Your task to perform on an android device: change the clock display to show seconds Image 0: 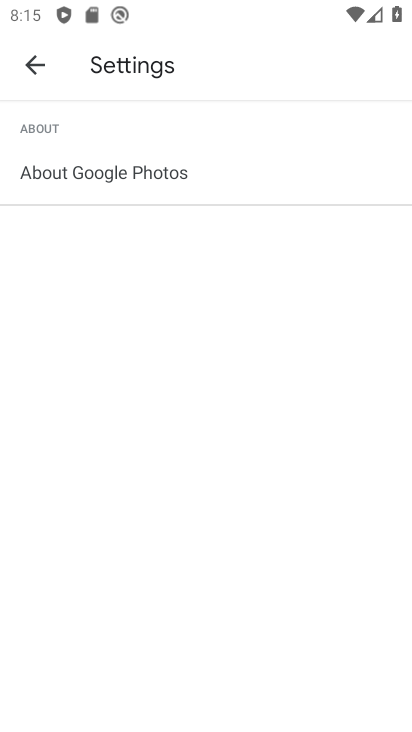
Step 0: press home button
Your task to perform on an android device: change the clock display to show seconds Image 1: 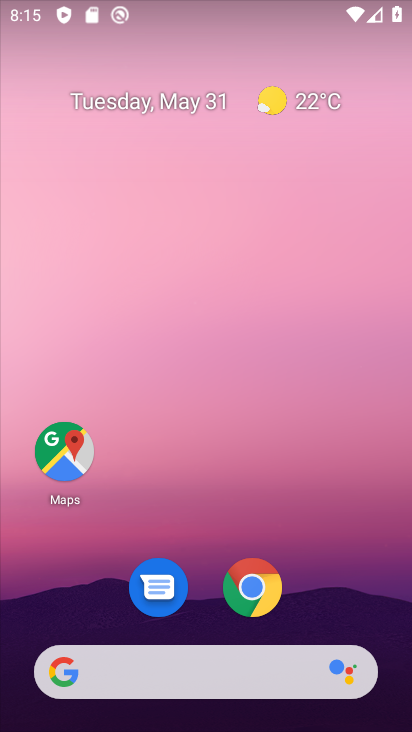
Step 1: drag from (197, 623) to (247, 126)
Your task to perform on an android device: change the clock display to show seconds Image 2: 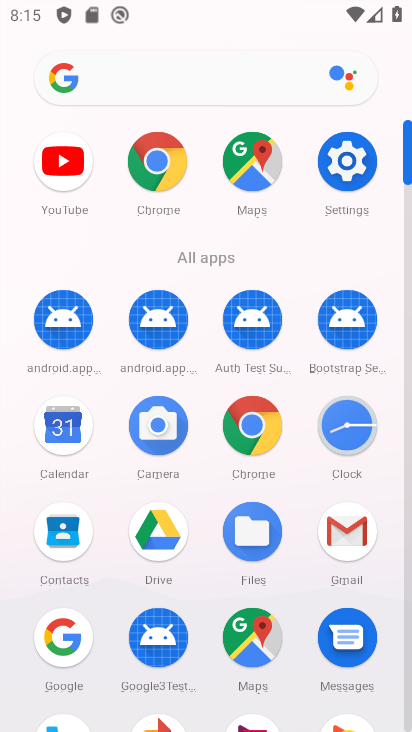
Step 2: click (348, 414)
Your task to perform on an android device: change the clock display to show seconds Image 3: 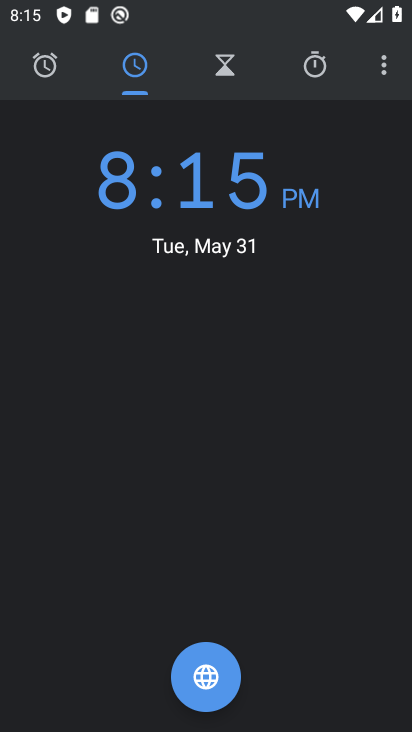
Step 3: click (378, 62)
Your task to perform on an android device: change the clock display to show seconds Image 4: 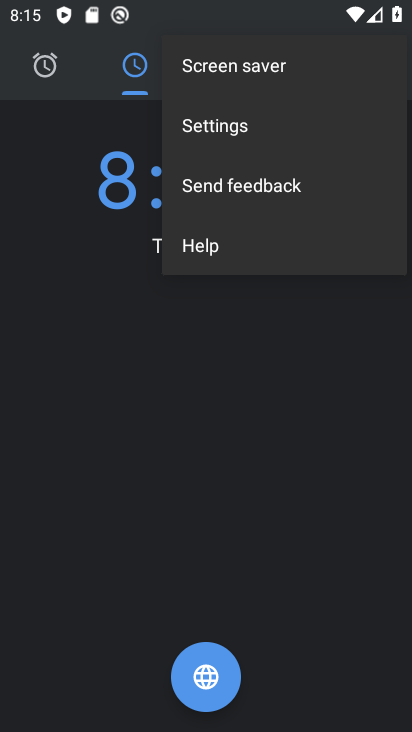
Step 4: click (284, 121)
Your task to perform on an android device: change the clock display to show seconds Image 5: 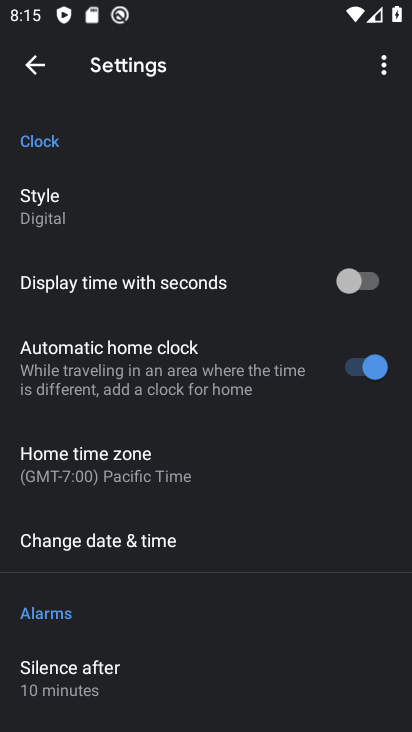
Step 5: click (358, 284)
Your task to perform on an android device: change the clock display to show seconds Image 6: 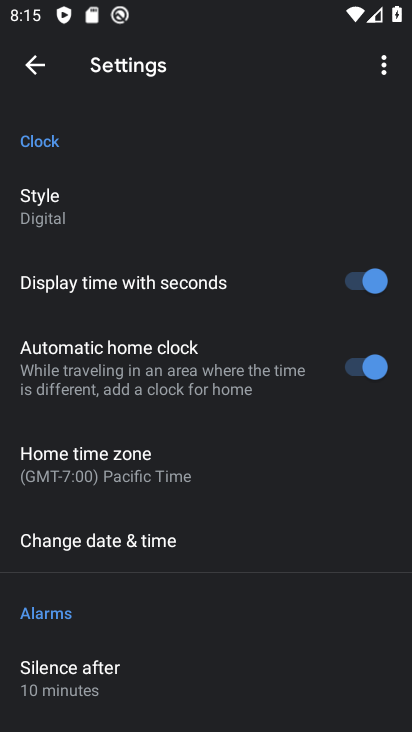
Step 6: task complete